Your task to perform on an android device: Add "bose quietcomfort 35" to the cart on bestbuy, then select checkout. Image 0: 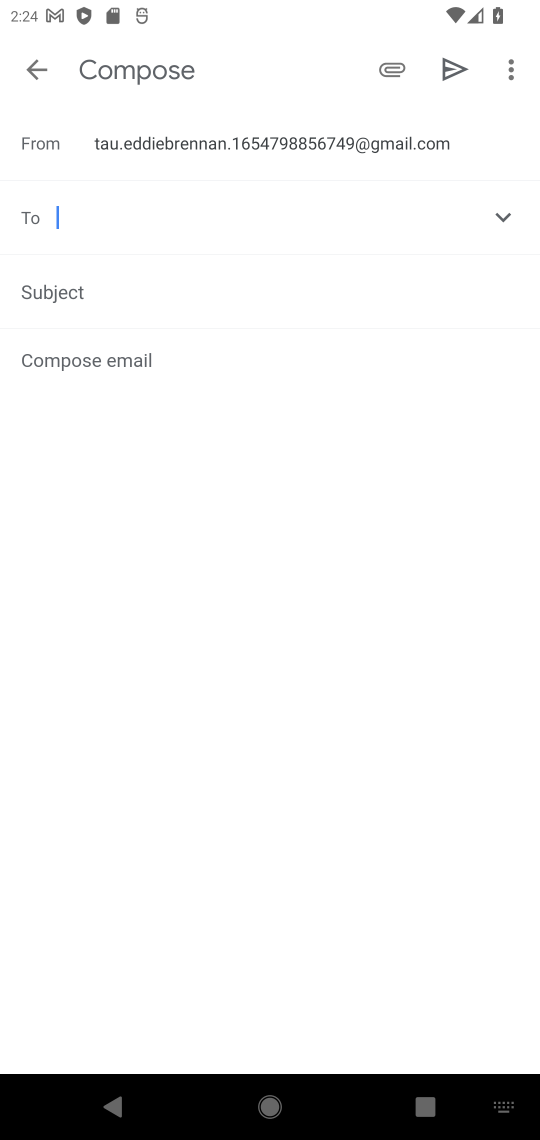
Step 0: press home button
Your task to perform on an android device: Add "bose quietcomfort 35" to the cart on bestbuy, then select checkout. Image 1: 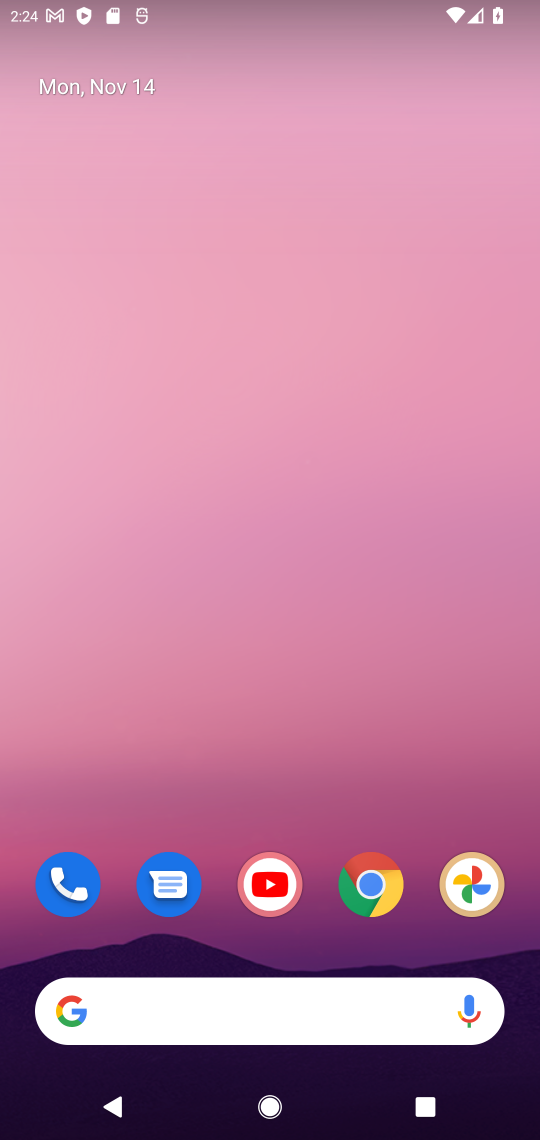
Step 1: click (370, 880)
Your task to perform on an android device: Add "bose quietcomfort 35" to the cart on bestbuy, then select checkout. Image 2: 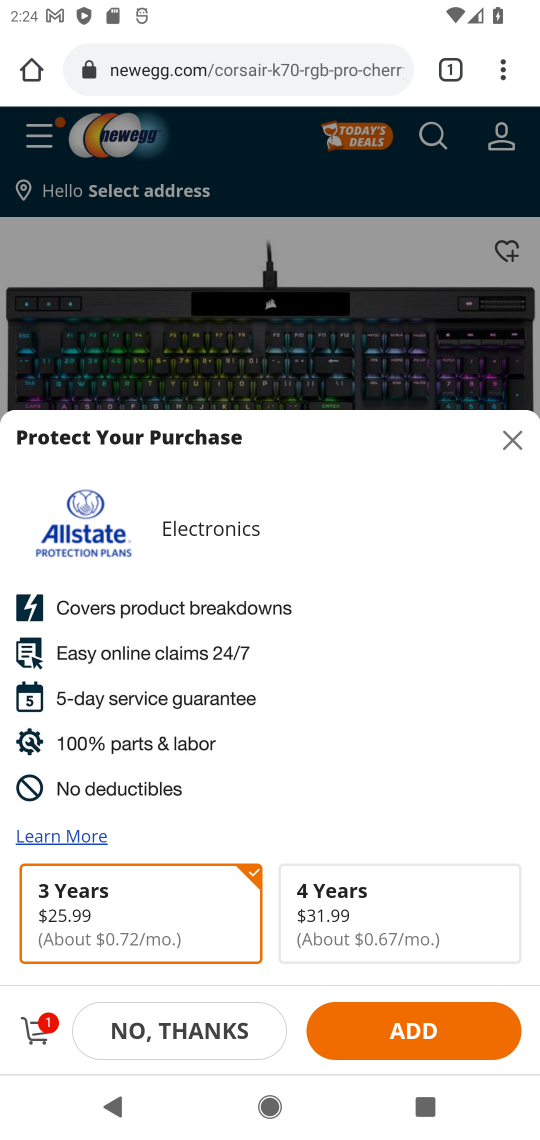
Step 2: click (27, 77)
Your task to perform on an android device: Add "bose quietcomfort 35" to the cart on bestbuy, then select checkout. Image 3: 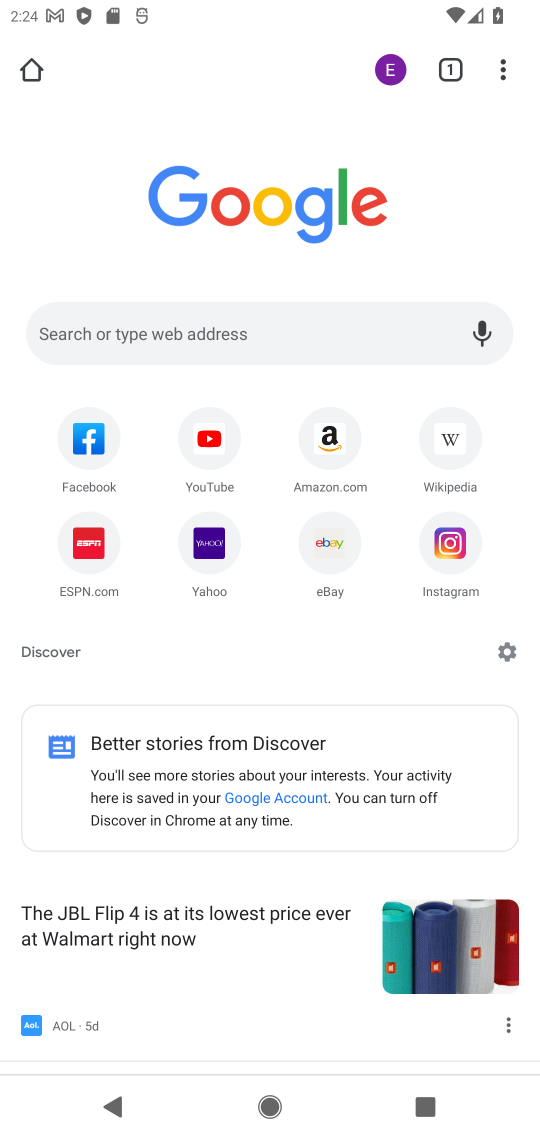
Step 3: click (244, 332)
Your task to perform on an android device: Add "bose quietcomfort 35" to the cart on bestbuy, then select checkout. Image 4: 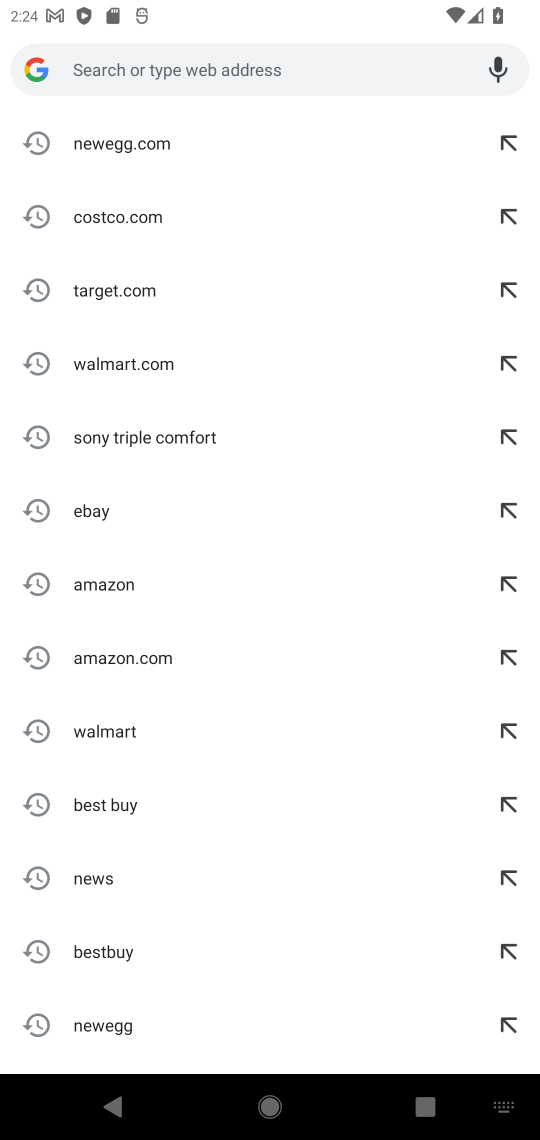
Step 4: click (119, 806)
Your task to perform on an android device: Add "bose quietcomfort 35" to the cart on bestbuy, then select checkout. Image 5: 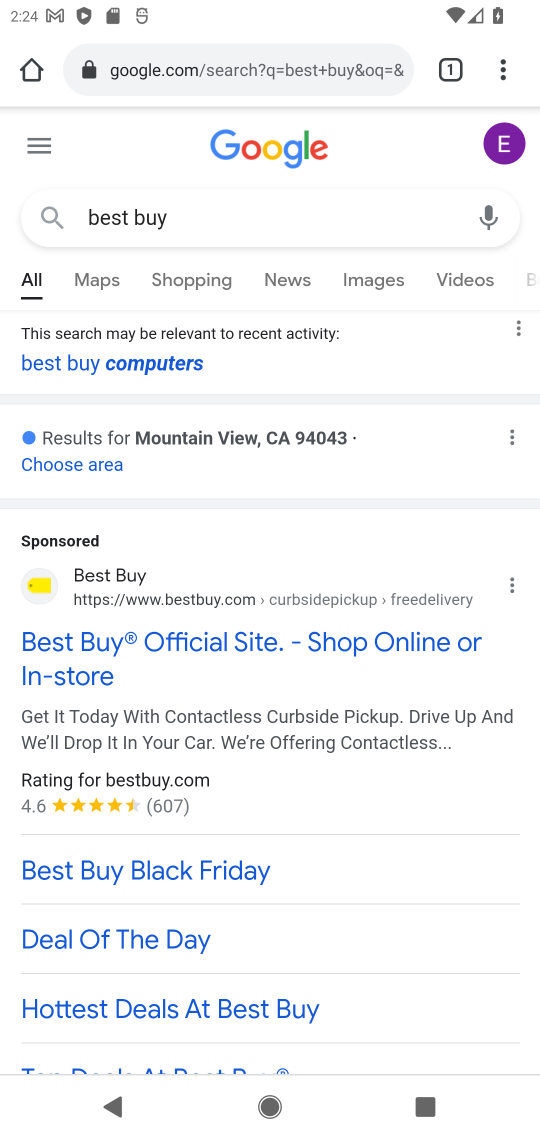
Step 5: click (209, 596)
Your task to perform on an android device: Add "bose quietcomfort 35" to the cart on bestbuy, then select checkout. Image 6: 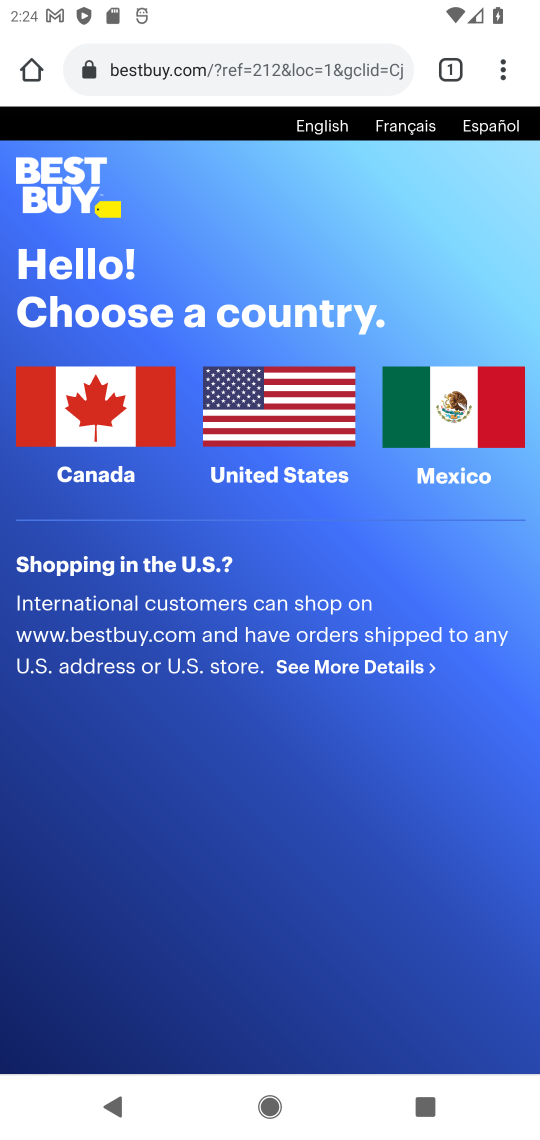
Step 6: click (302, 408)
Your task to perform on an android device: Add "bose quietcomfort 35" to the cart on bestbuy, then select checkout. Image 7: 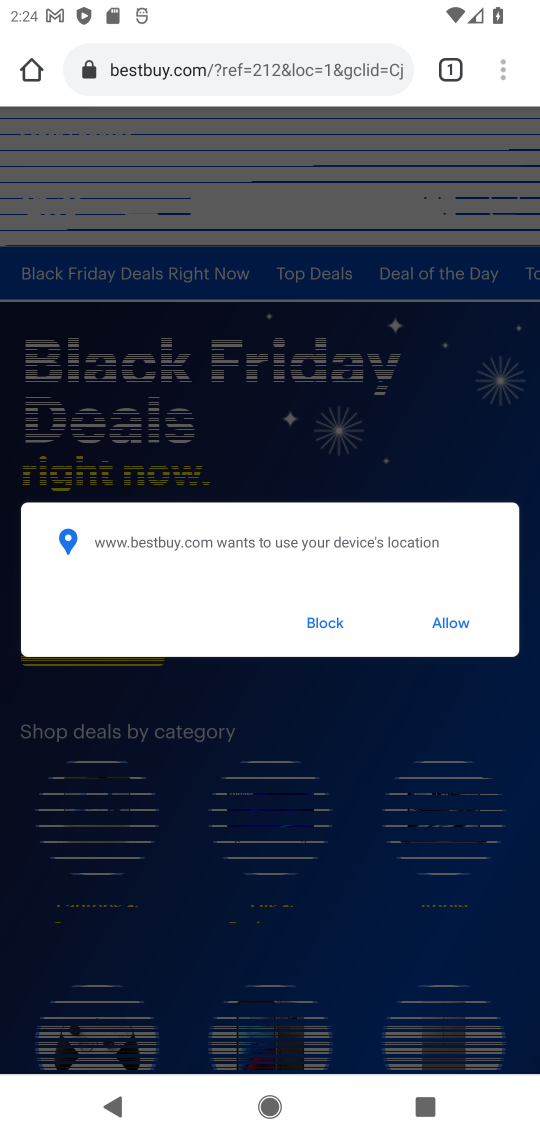
Step 7: click (313, 618)
Your task to perform on an android device: Add "bose quietcomfort 35" to the cart on bestbuy, then select checkout. Image 8: 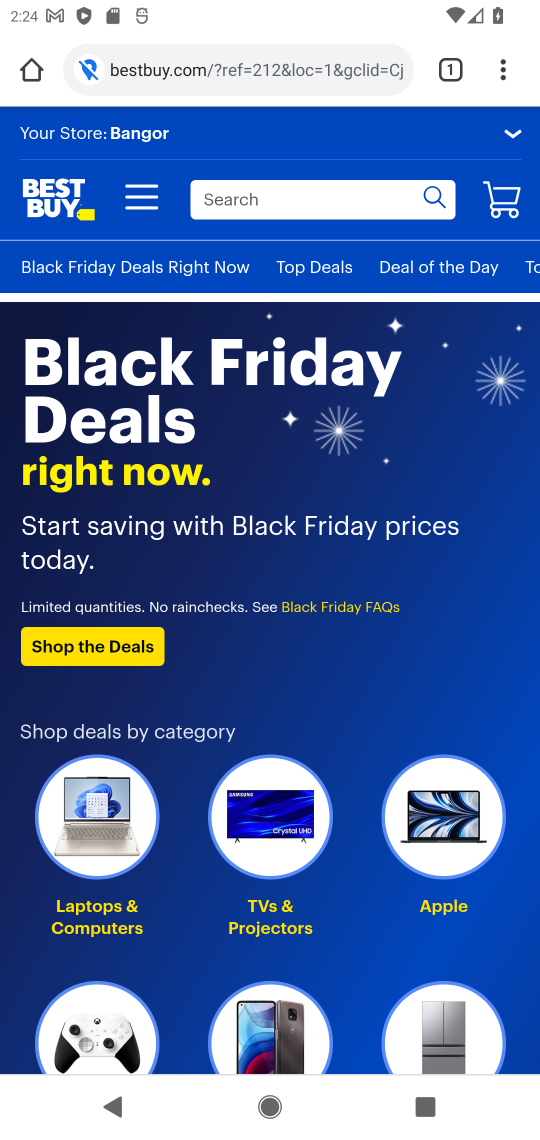
Step 8: click (250, 198)
Your task to perform on an android device: Add "bose quietcomfort 35" to the cart on bestbuy, then select checkout. Image 9: 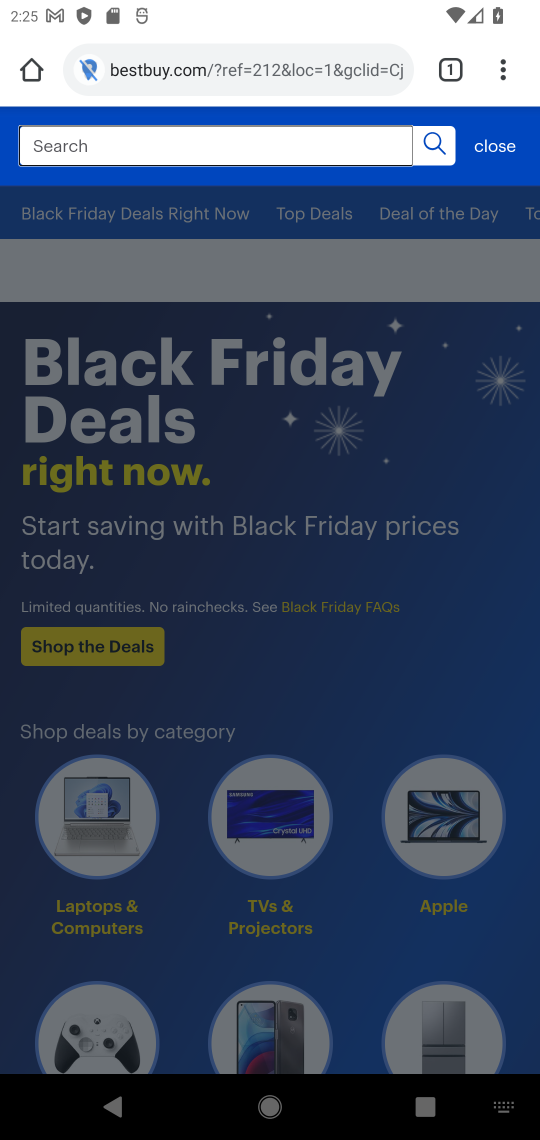
Step 9: type "bose quietcomfort 35"
Your task to perform on an android device: Add "bose quietcomfort 35" to the cart on bestbuy, then select checkout. Image 10: 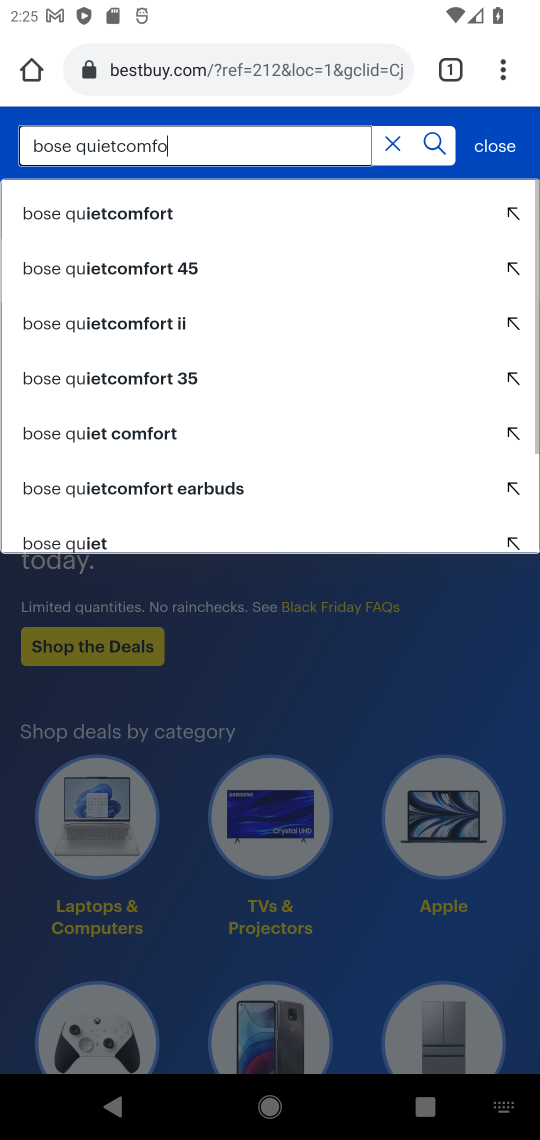
Step 10: press enter
Your task to perform on an android device: Add "bose quietcomfort 35" to the cart on bestbuy, then select checkout. Image 11: 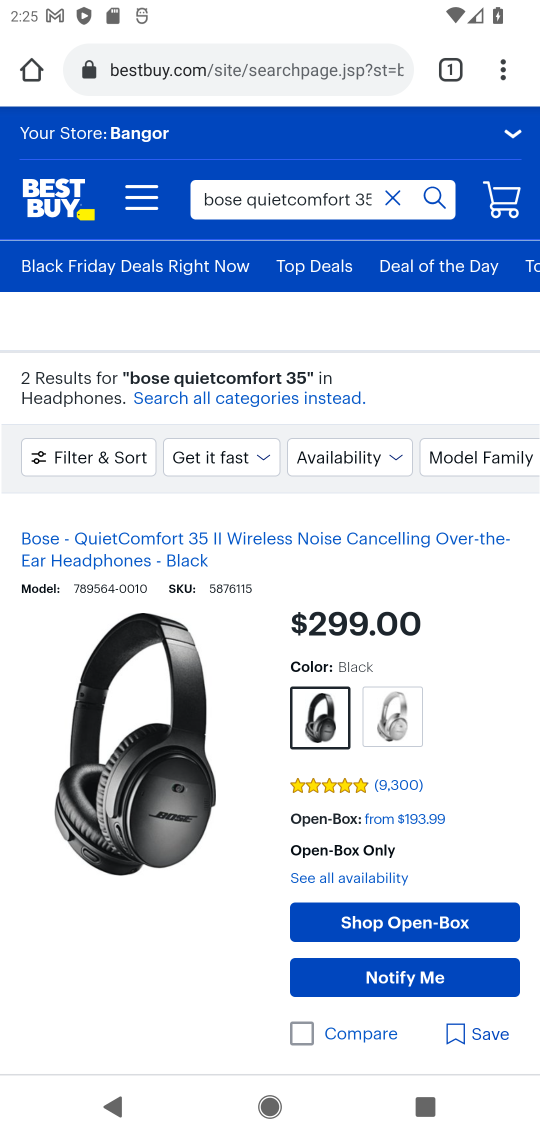
Step 11: click (129, 724)
Your task to perform on an android device: Add "bose quietcomfort 35" to the cart on bestbuy, then select checkout. Image 12: 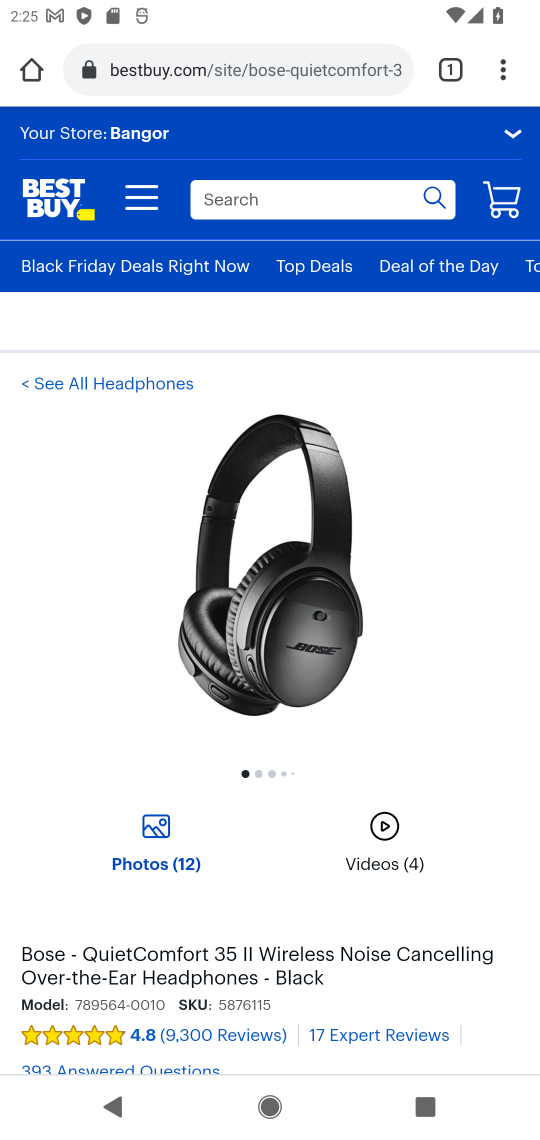
Step 12: task complete